Your task to perform on an android device: Search for the best rated running shoes on Nike.com Image 0: 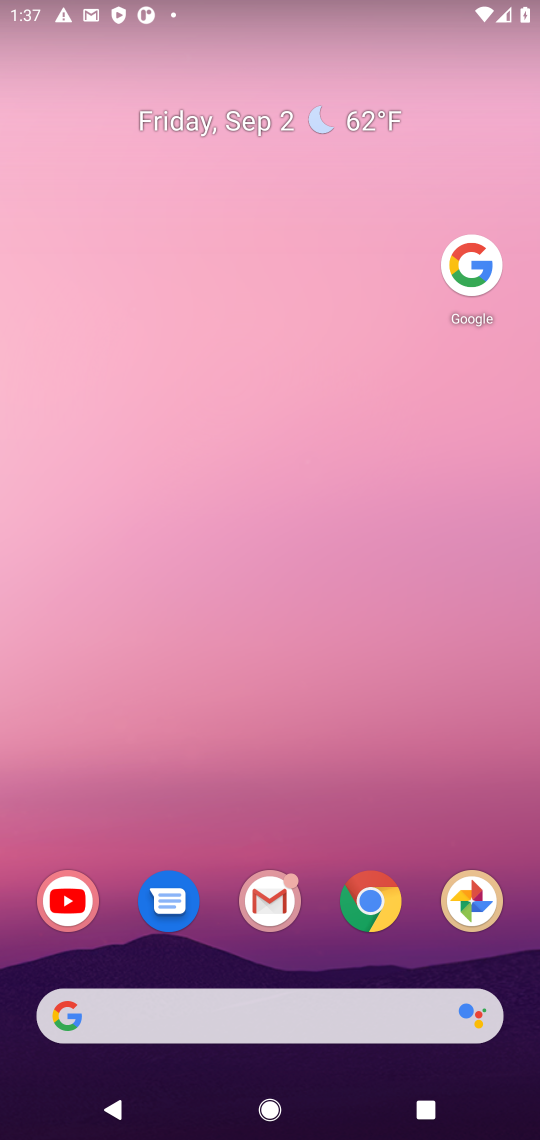
Step 0: click (257, 839)
Your task to perform on an android device: Search for the best rated running shoes on Nike.com Image 1: 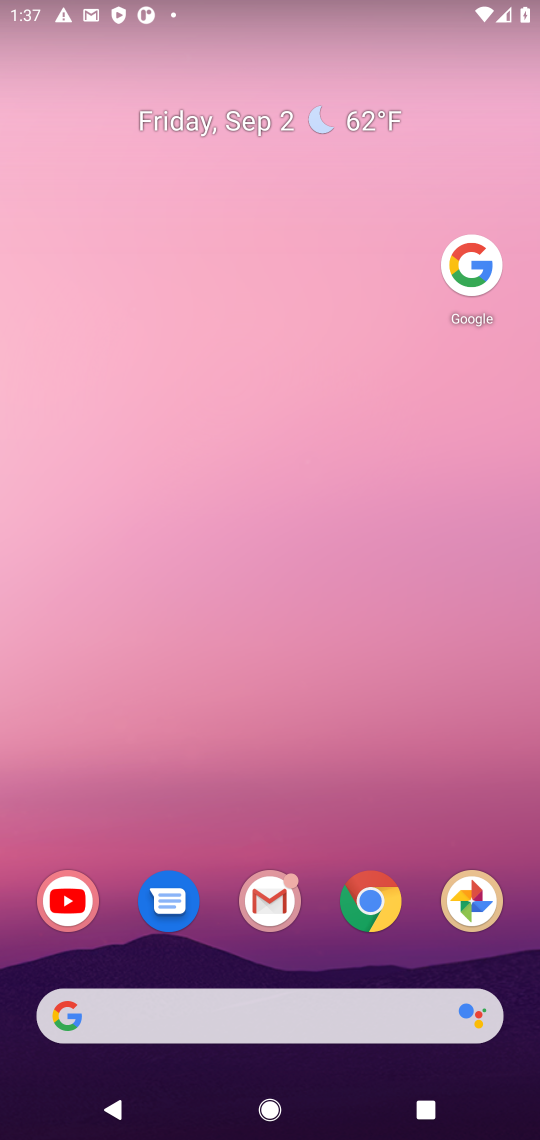
Step 1: click (357, 898)
Your task to perform on an android device: Search for the best rated running shoes on Nike.com Image 2: 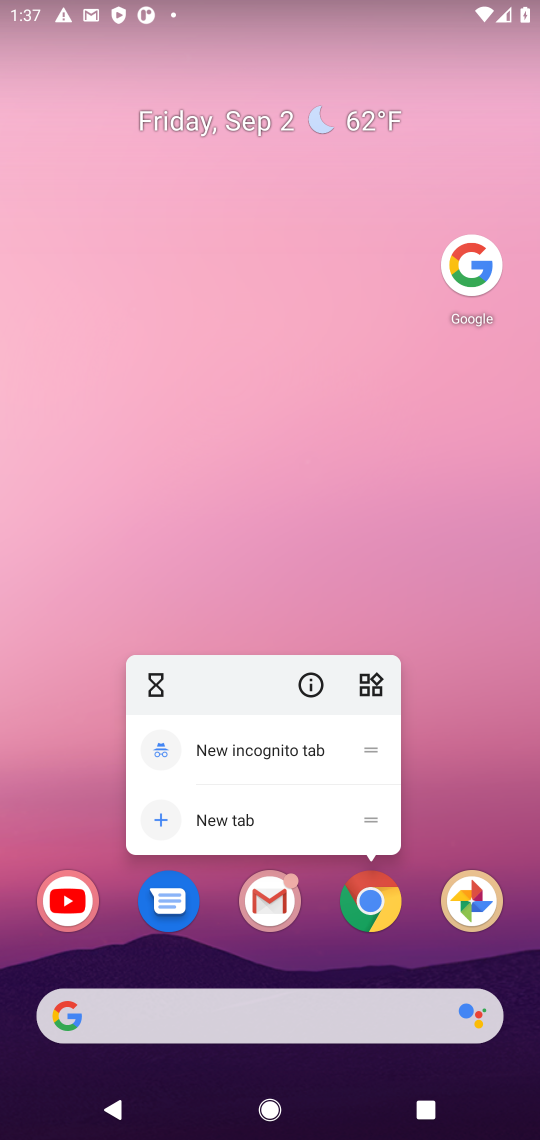
Step 2: click (357, 898)
Your task to perform on an android device: Search for the best rated running shoes on Nike.com Image 3: 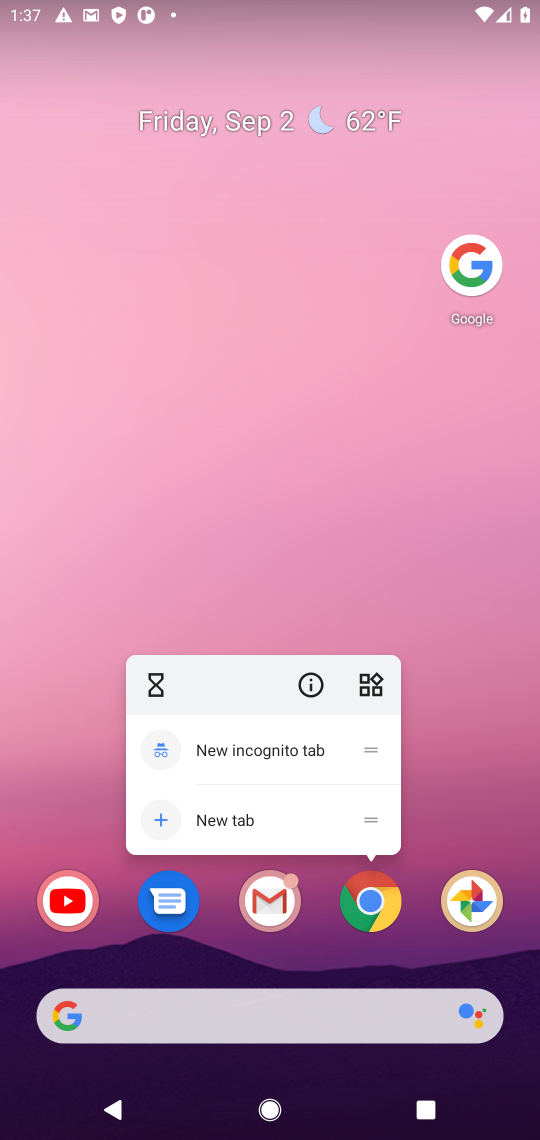
Step 3: click (379, 894)
Your task to perform on an android device: Search for the best rated running shoes on Nike.com Image 4: 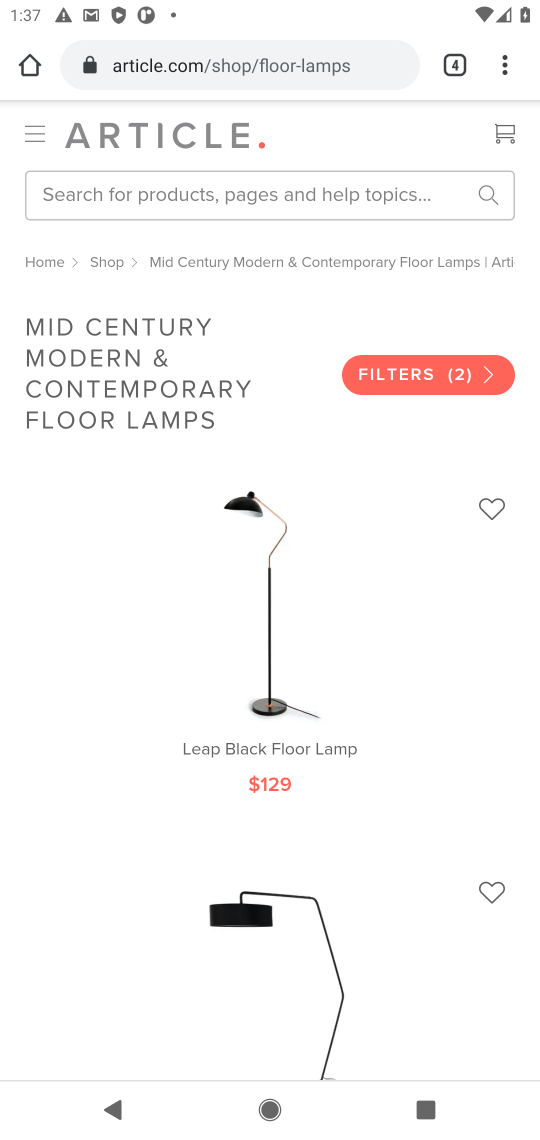
Step 4: click (506, 53)
Your task to perform on an android device: Search for the best rated running shoes on Nike.com Image 5: 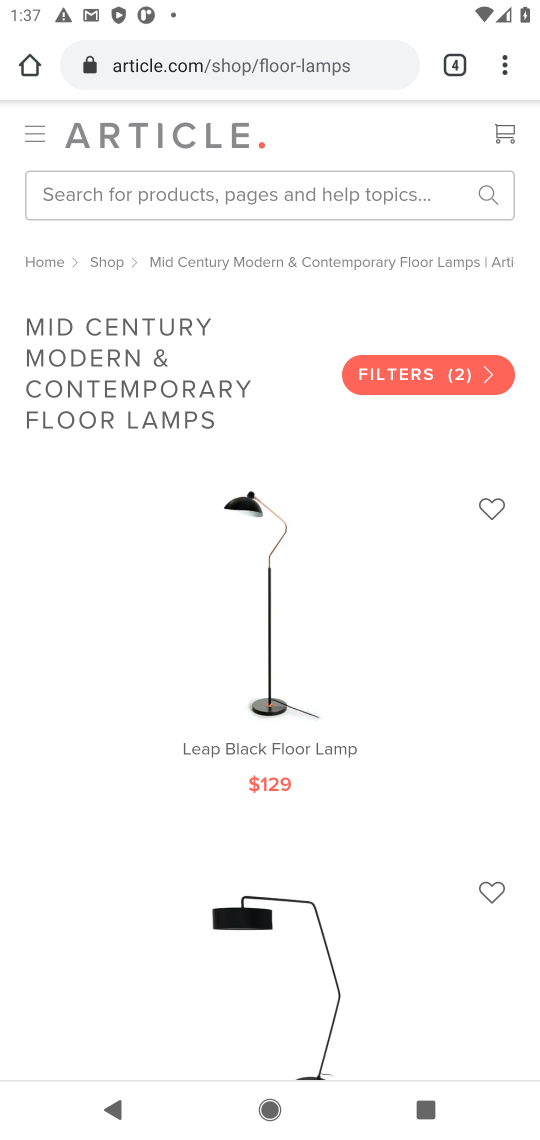
Step 5: click (507, 68)
Your task to perform on an android device: Search for the best rated running shoes on Nike.com Image 6: 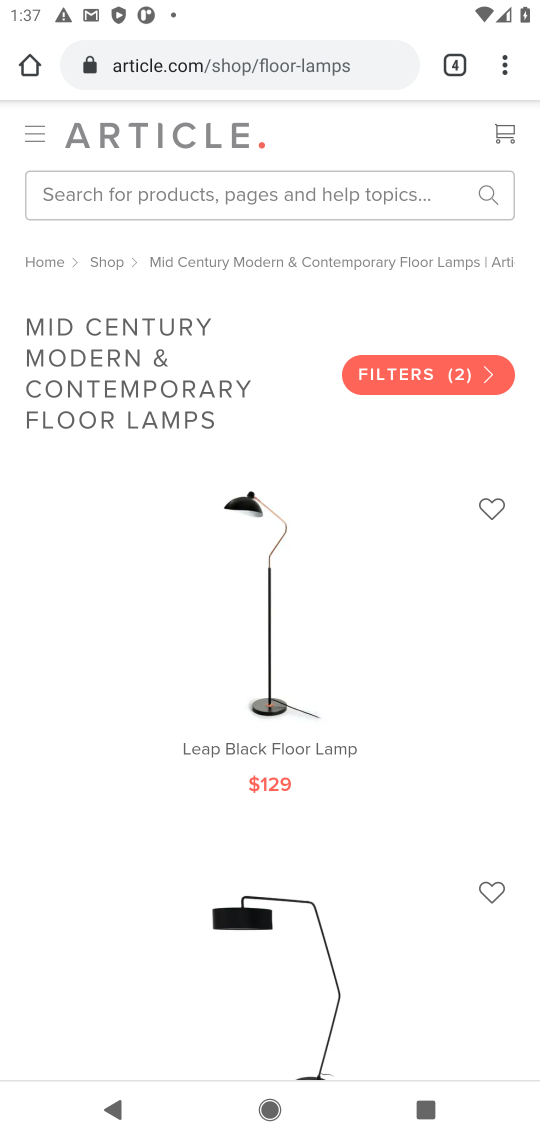
Step 6: click (507, 64)
Your task to perform on an android device: Search for the best rated running shoes on Nike.com Image 7: 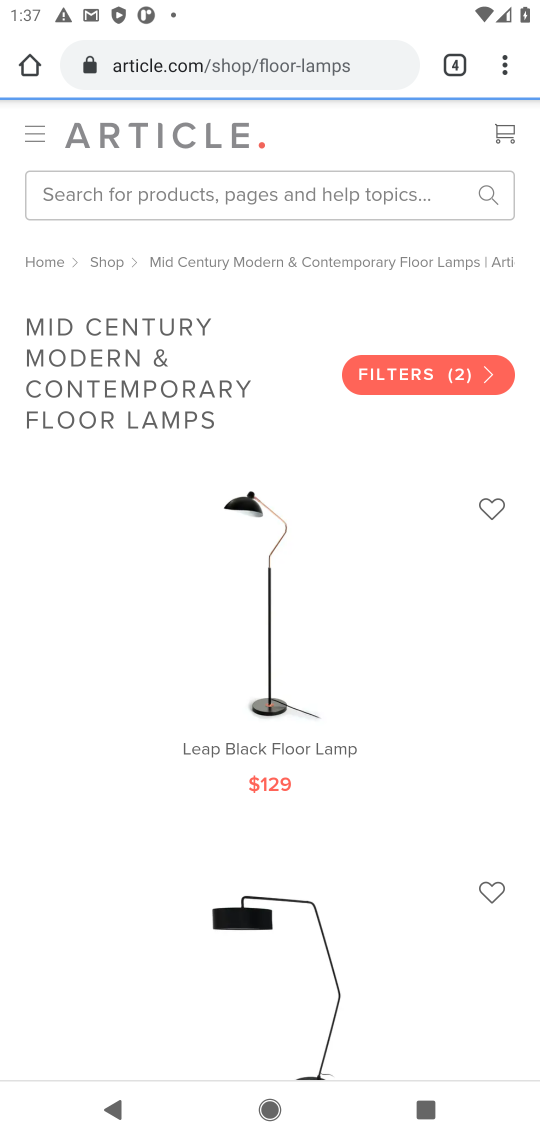
Step 7: click (507, 64)
Your task to perform on an android device: Search for the best rated running shoes on Nike.com Image 8: 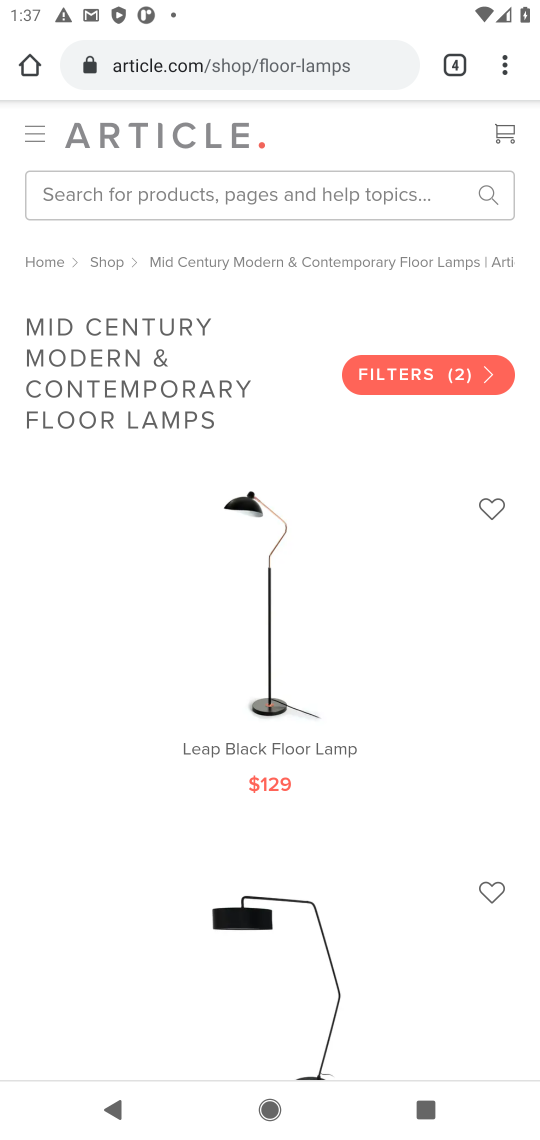
Step 8: click (505, 60)
Your task to perform on an android device: Search for the best rated running shoes on Nike.com Image 9: 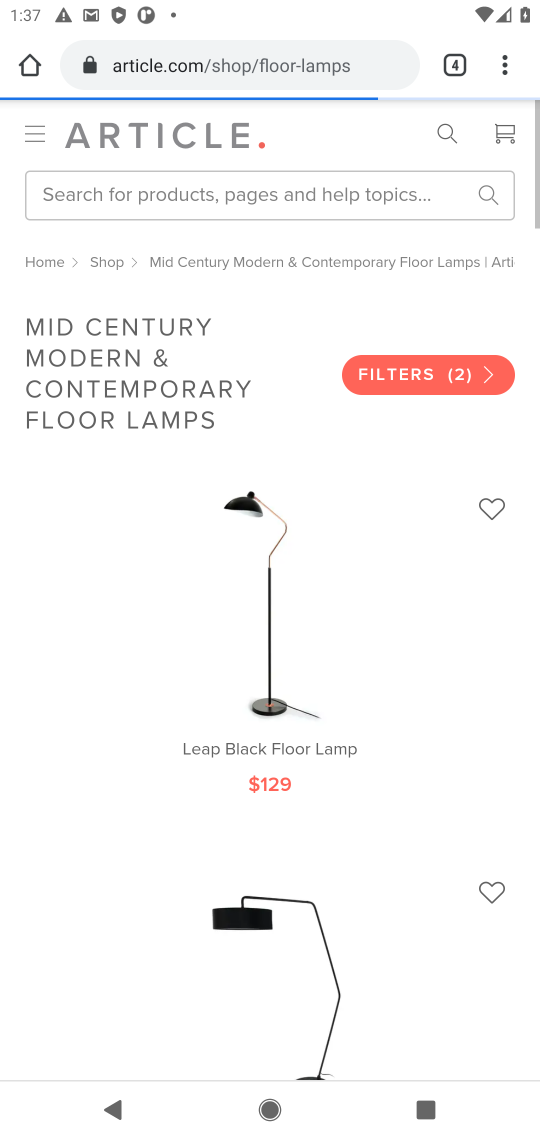
Step 9: click (505, 60)
Your task to perform on an android device: Search for the best rated running shoes on Nike.com Image 10: 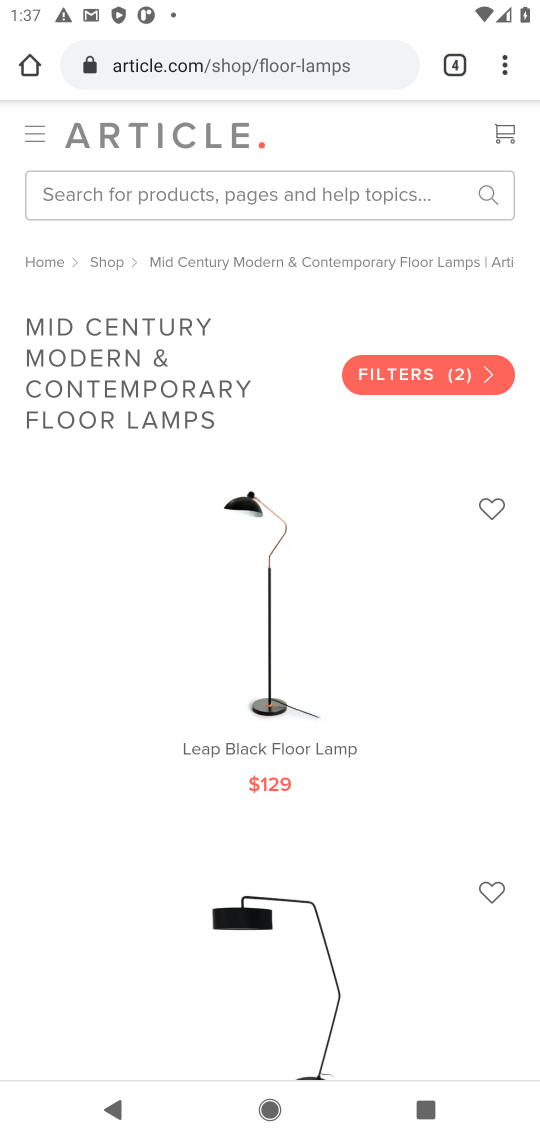
Step 10: click (505, 60)
Your task to perform on an android device: Search for the best rated running shoes on Nike.com Image 11: 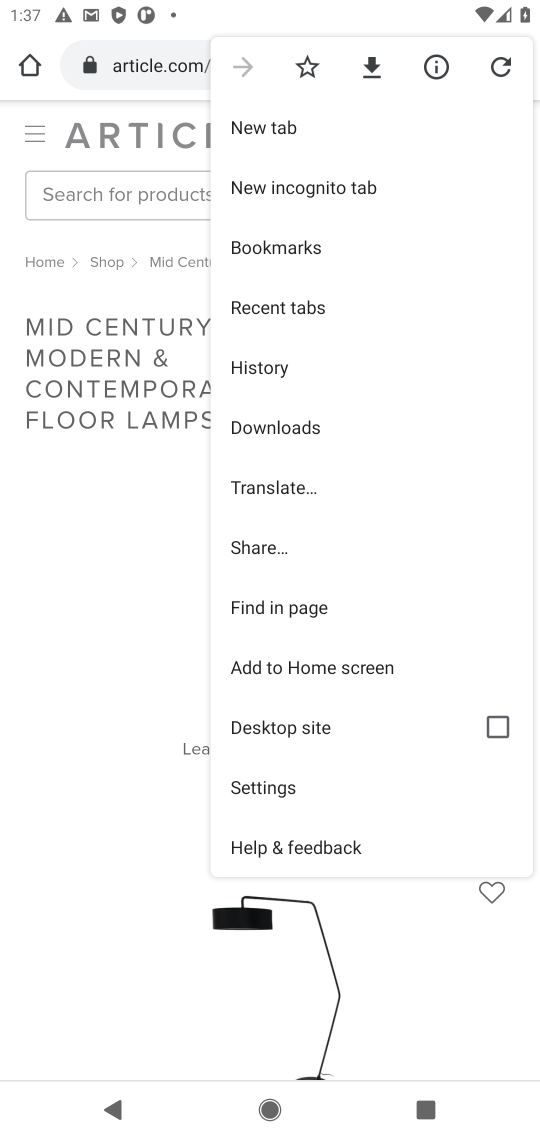
Step 11: click (288, 121)
Your task to perform on an android device: Search for the best rated running shoes on Nike.com Image 12: 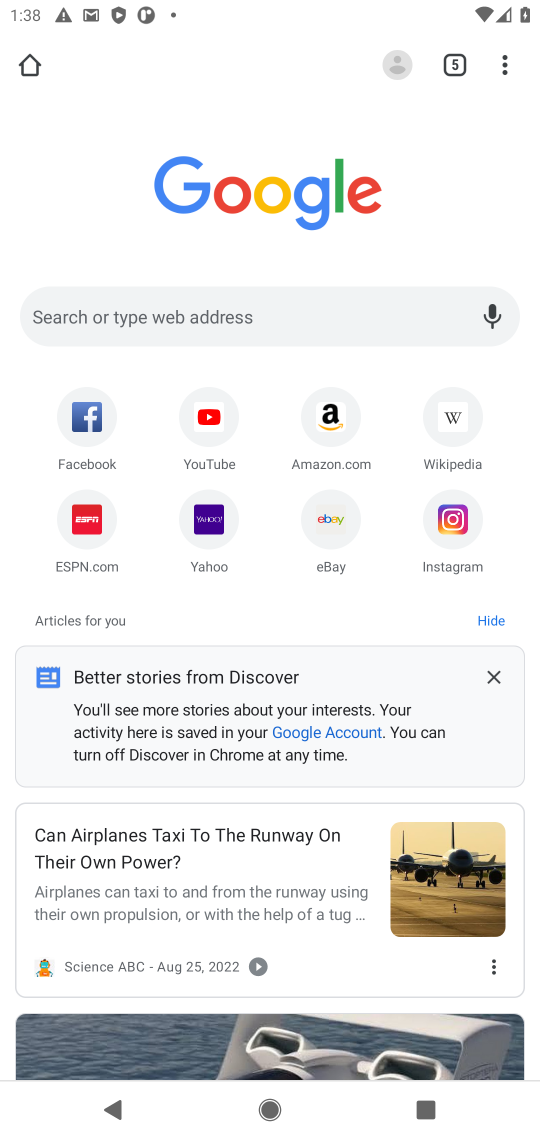
Step 12: click (203, 301)
Your task to perform on an android device: Search for the best rated running shoes on Nike.com Image 13: 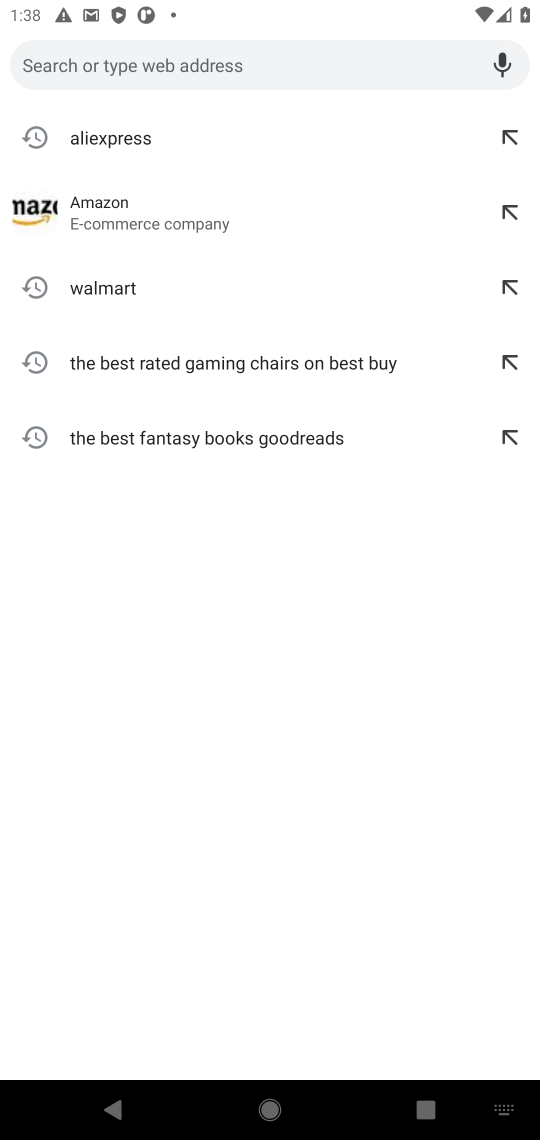
Step 13: type "the best rated running shoes on Nike.com "
Your task to perform on an android device: Search for the best rated running shoes on Nike.com Image 14: 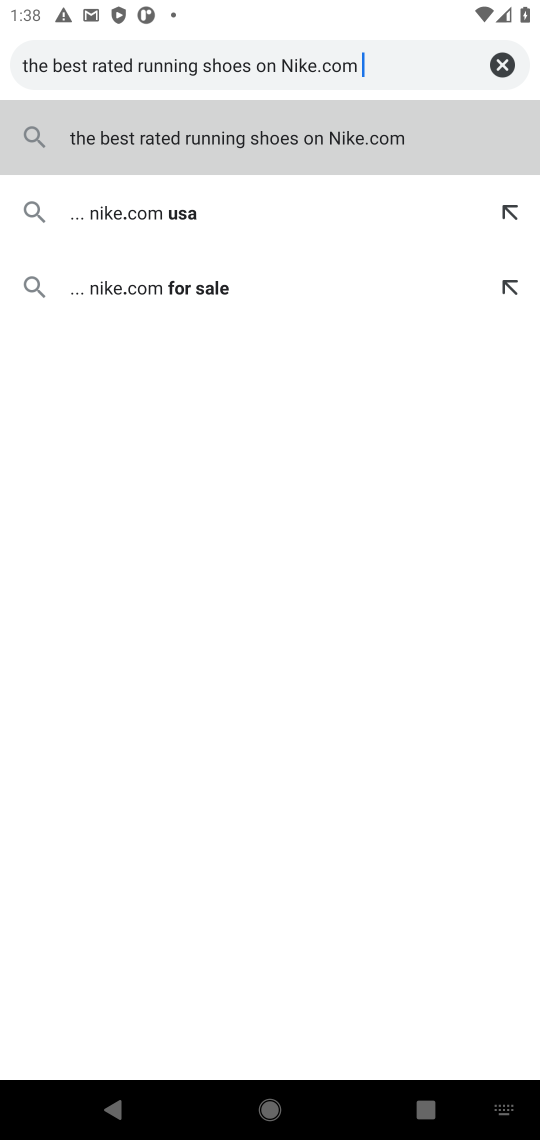
Step 14: click (227, 117)
Your task to perform on an android device: Search for the best rated running shoes on Nike.com Image 15: 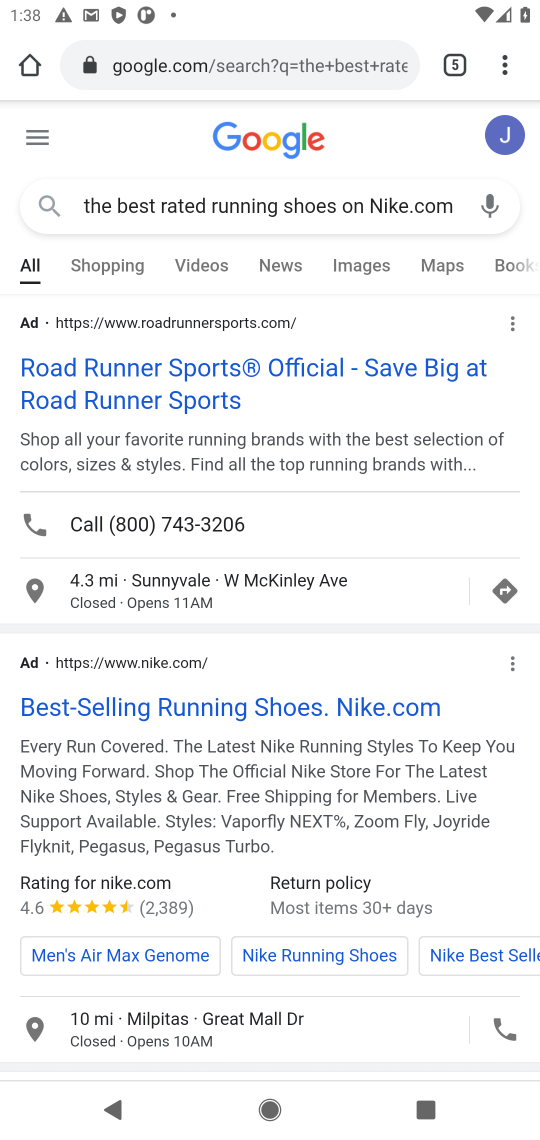
Step 15: click (247, 711)
Your task to perform on an android device: Search for the best rated running shoes on Nike.com Image 16: 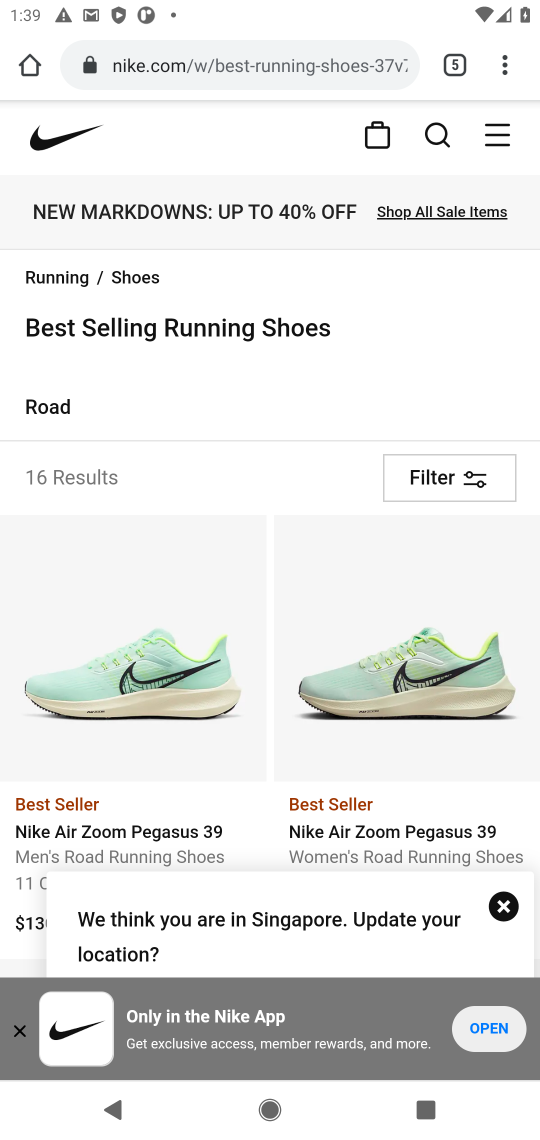
Step 16: click (499, 912)
Your task to perform on an android device: Search for the best rated running shoes on Nike.com Image 17: 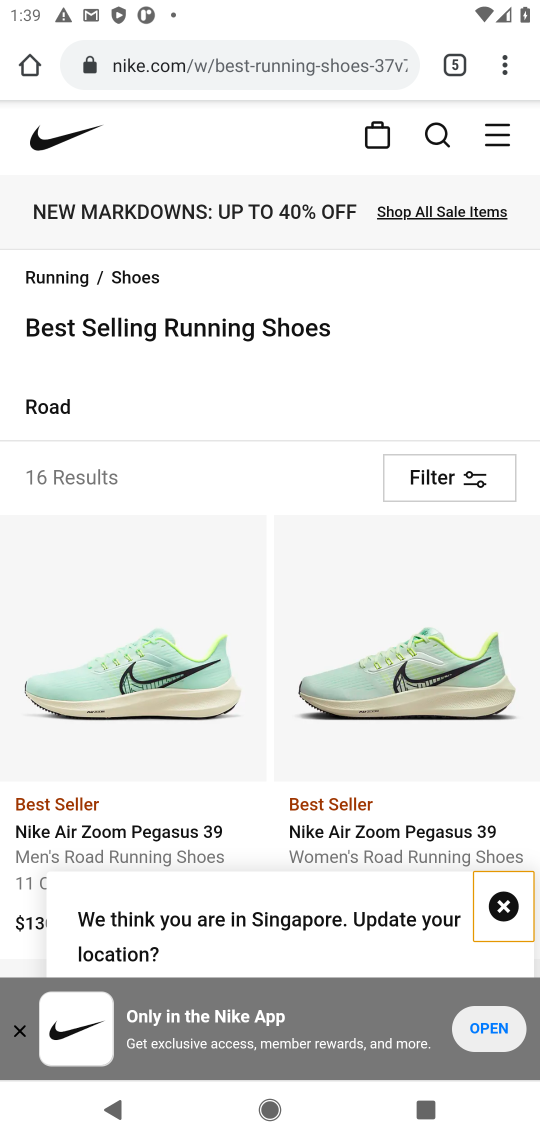
Step 17: task complete